Your task to perform on an android device: install app "NewsBreak: Local News & Alerts" Image 0: 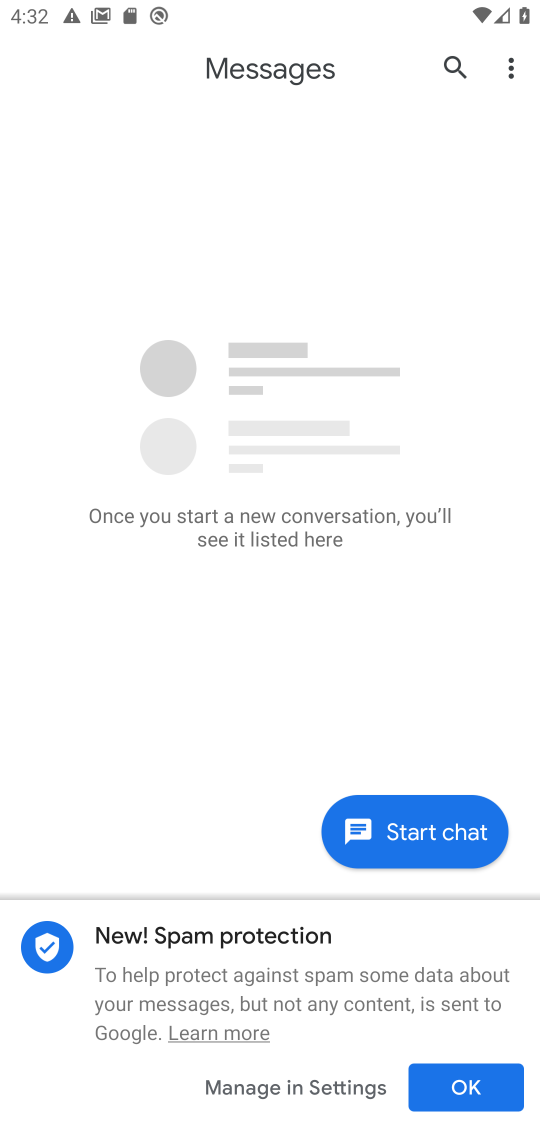
Step 0: press home button
Your task to perform on an android device: install app "NewsBreak: Local News & Alerts" Image 1: 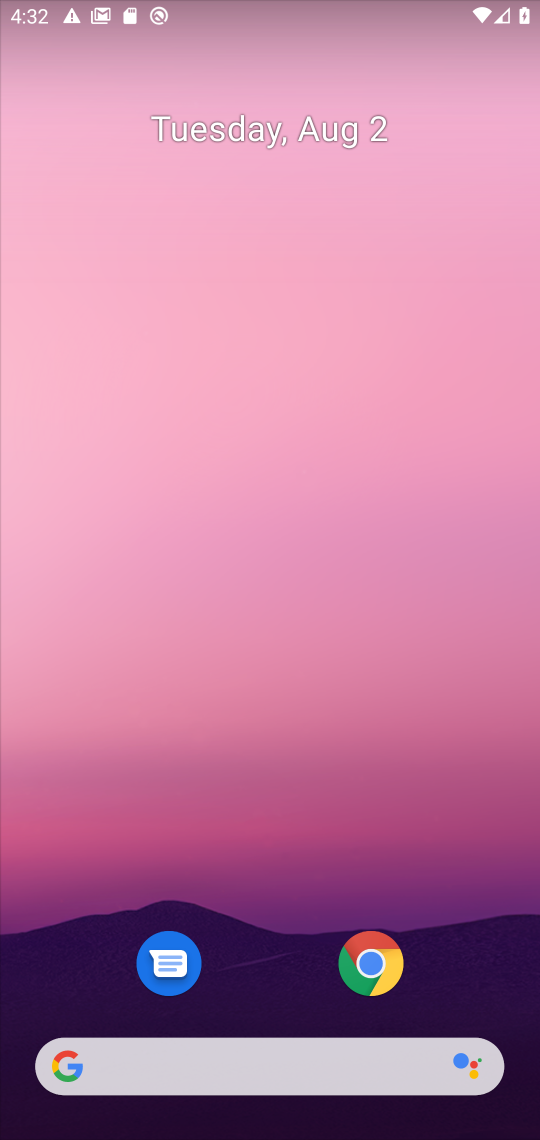
Step 1: drag from (287, 1041) to (292, 210)
Your task to perform on an android device: install app "NewsBreak: Local News & Alerts" Image 2: 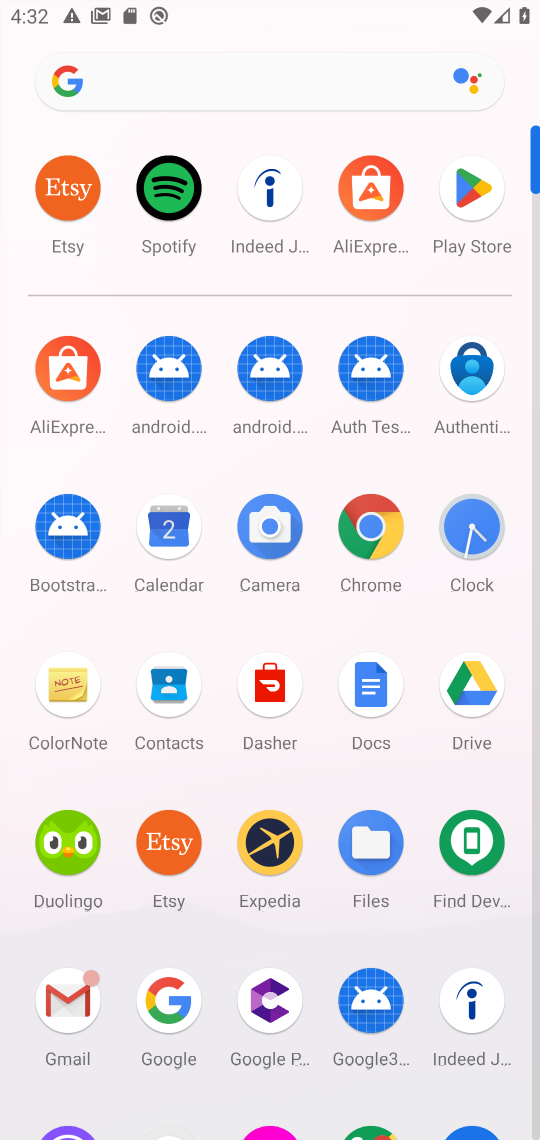
Step 2: click (474, 196)
Your task to perform on an android device: install app "NewsBreak: Local News & Alerts" Image 3: 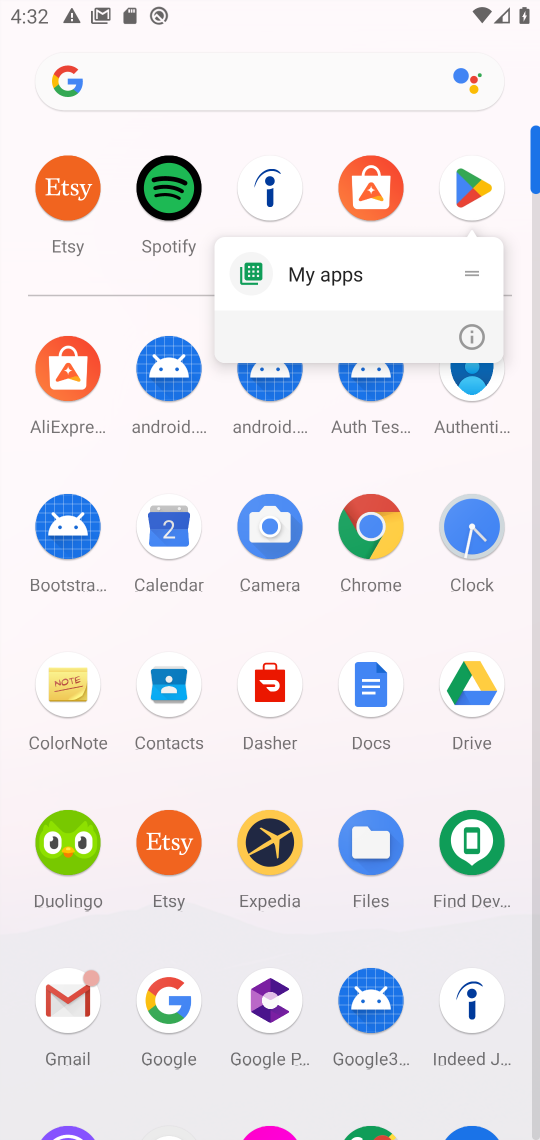
Step 3: click (467, 187)
Your task to perform on an android device: install app "NewsBreak: Local News & Alerts" Image 4: 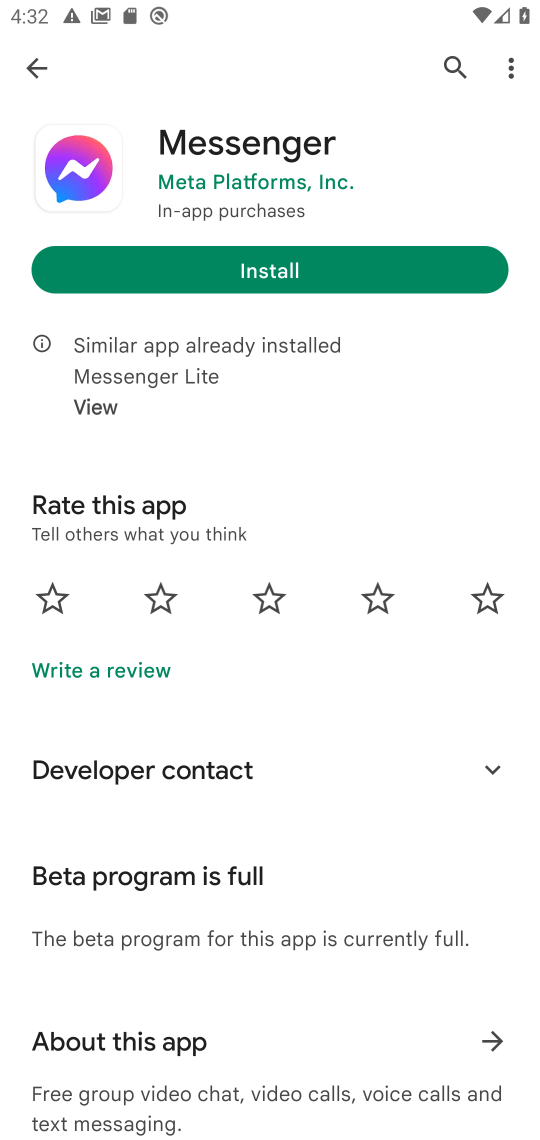
Step 4: click (458, 55)
Your task to perform on an android device: install app "NewsBreak: Local News & Alerts" Image 5: 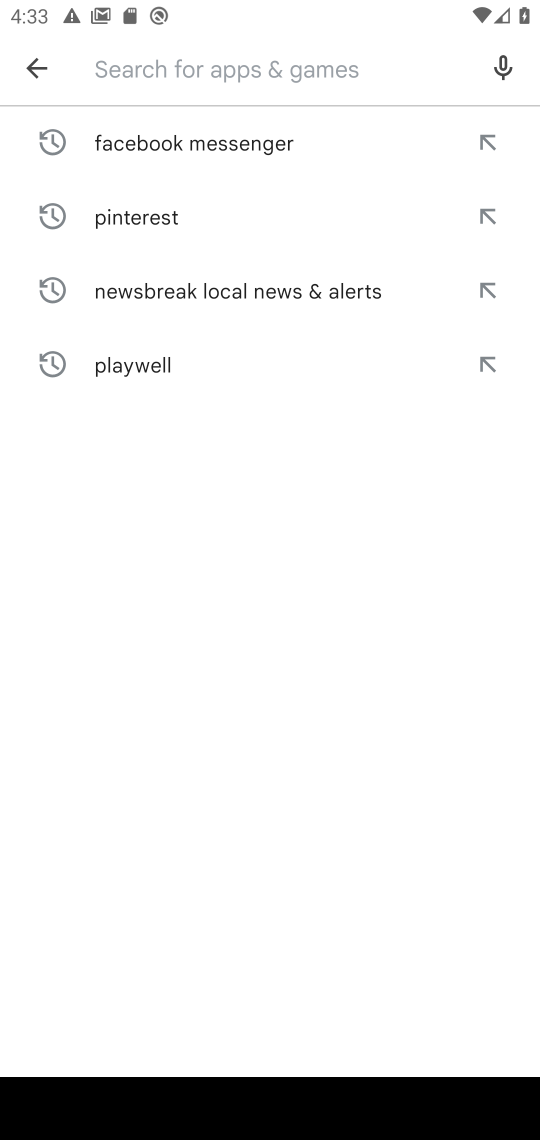
Step 5: type "NewsBreak: Local News & Alerts"
Your task to perform on an android device: install app "NewsBreak: Local News & Alerts" Image 6: 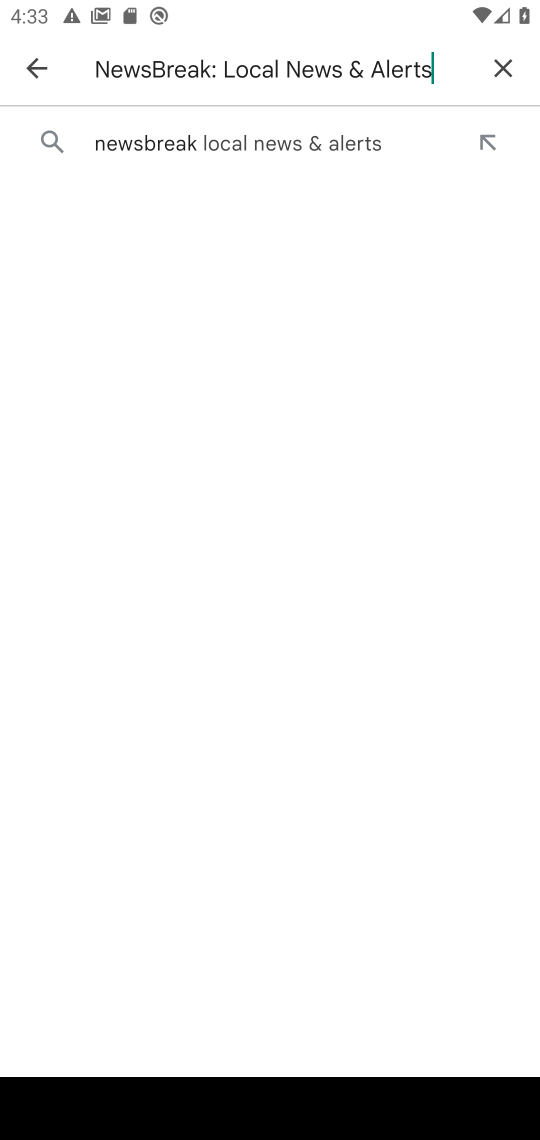
Step 6: click (186, 139)
Your task to perform on an android device: install app "NewsBreak: Local News & Alerts" Image 7: 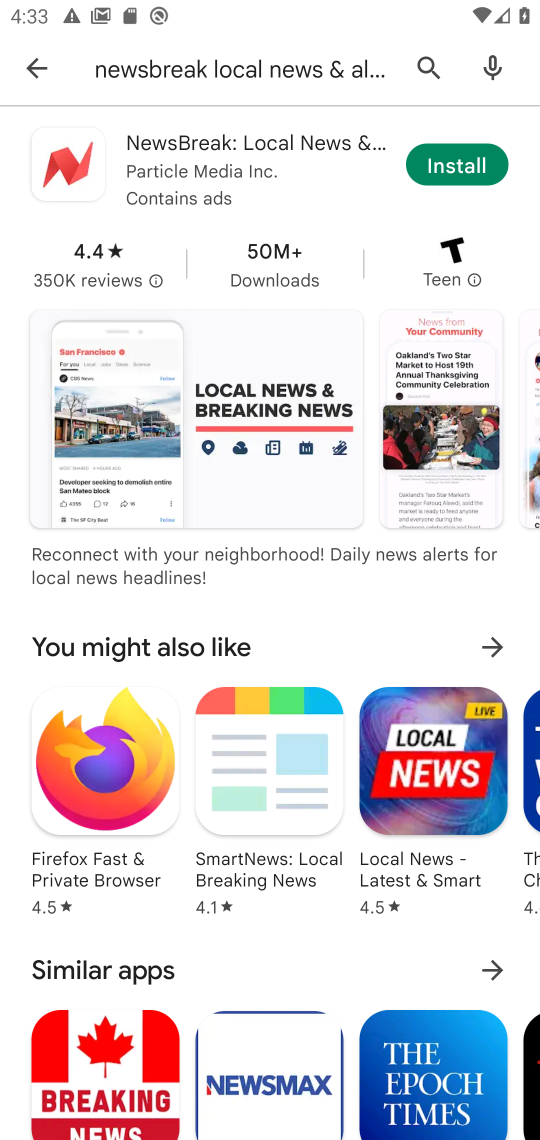
Step 7: click (429, 168)
Your task to perform on an android device: install app "NewsBreak: Local News & Alerts" Image 8: 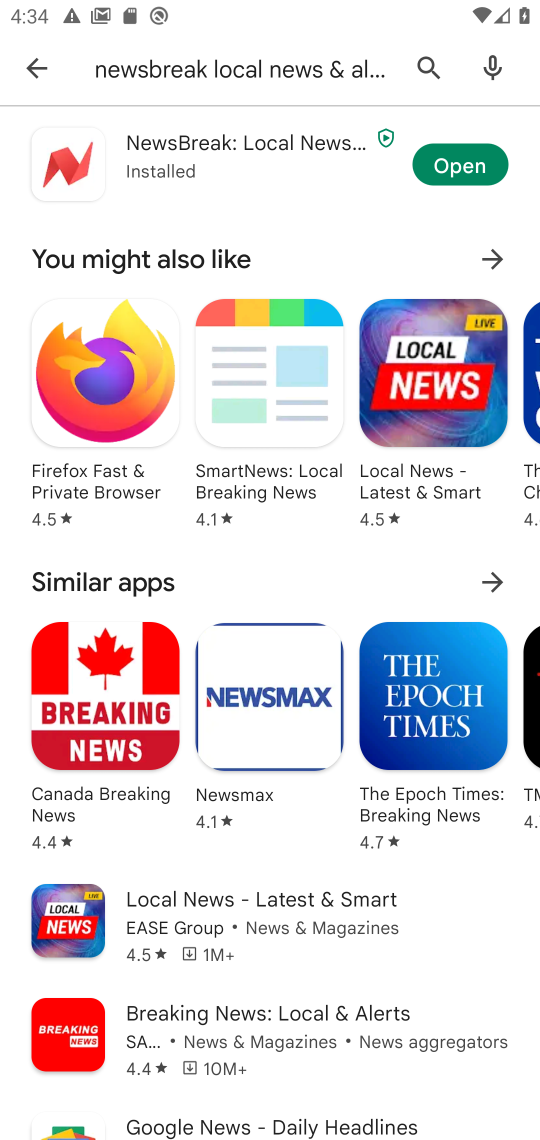
Step 8: click (460, 165)
Your task to perform on an android device: install app "NewsBreak: Local News & Alerts" Image 9: 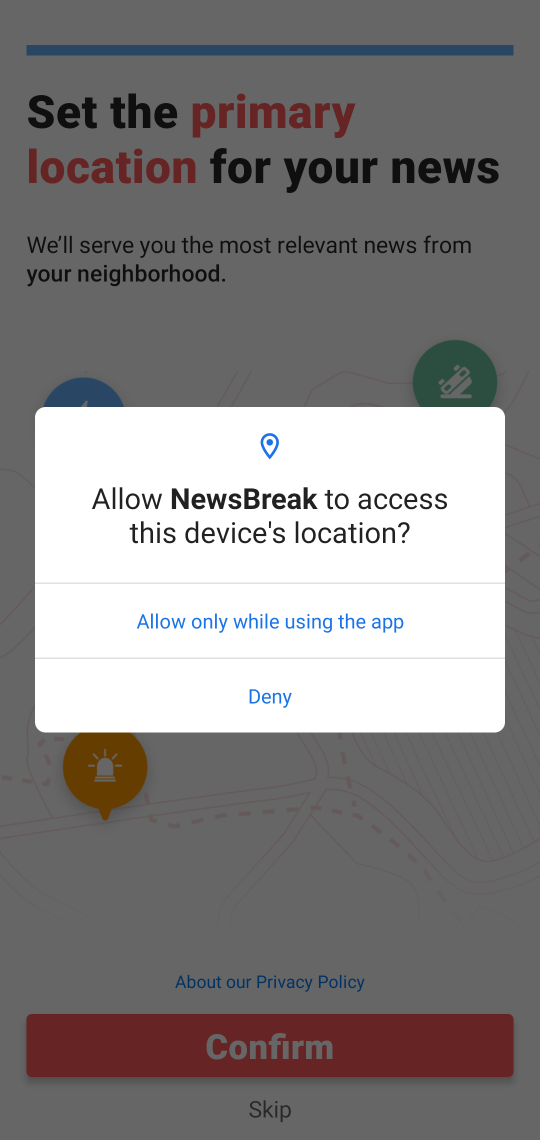
Step 9: task complete